Your task to perform on an android device: turn notification dots on Image 0: 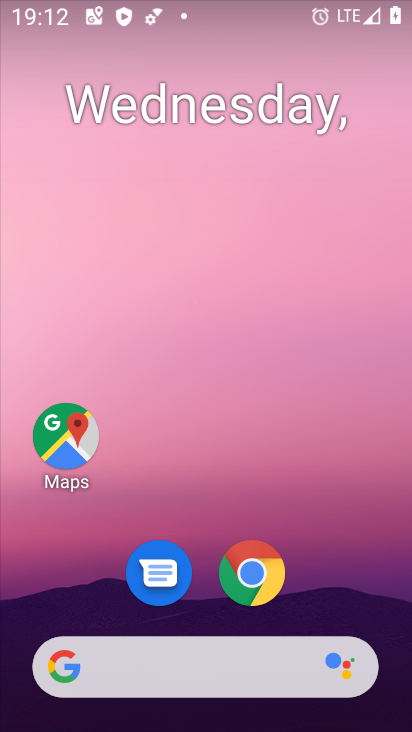
Step 0: drag from (369, 593) to (335, 166)
Your task to perform on an android device: turn notification dots on Image 1: 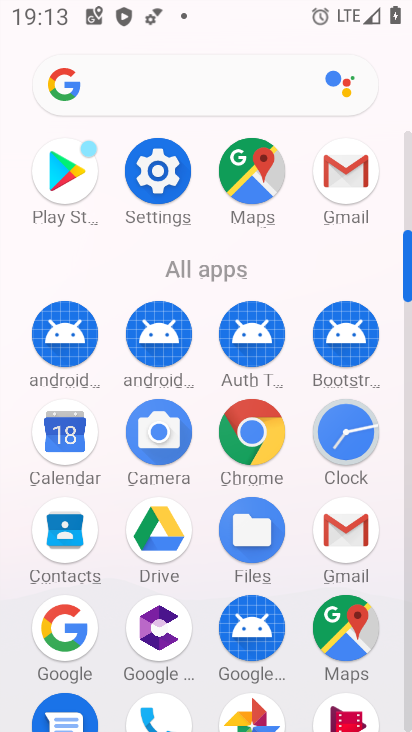
Step 1: click (166, 185)
Your task to perform on an android device: turn notification dots on Image 2: 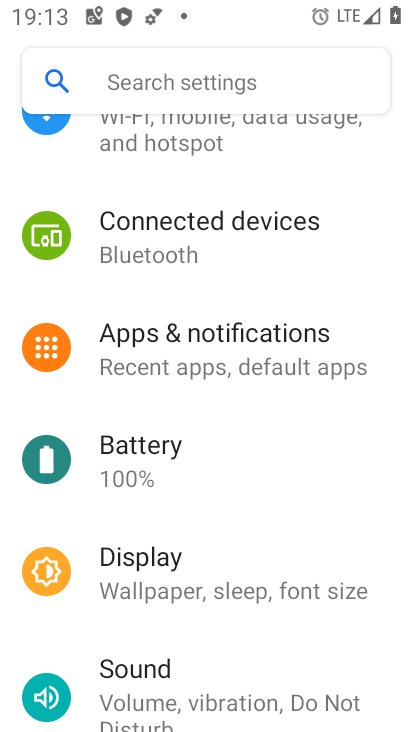
Step 2: click (210, 337)
Your task to perform on an android device: turn notification dots on Image 3: 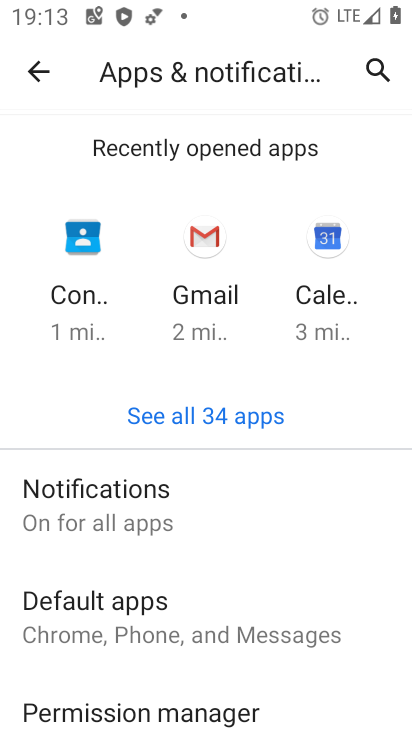
Step 3: click (199, 519)
Your task to perform on an android device: turn notification dots on Image 4: 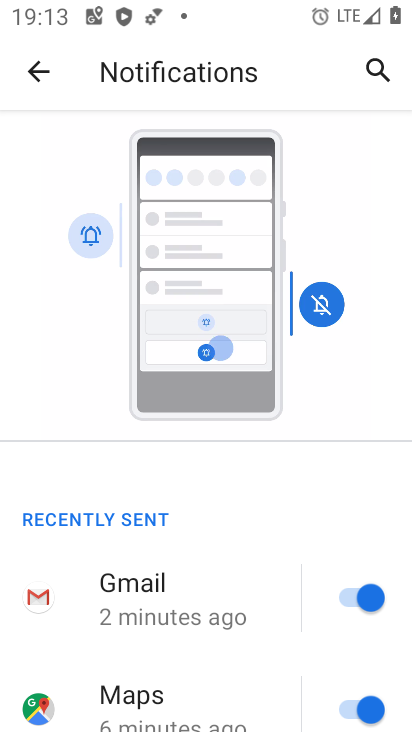
Step 4: drag from (197, 628) to (223, 11)
Your task to perform on an android device: turn notification dots on Image 5: 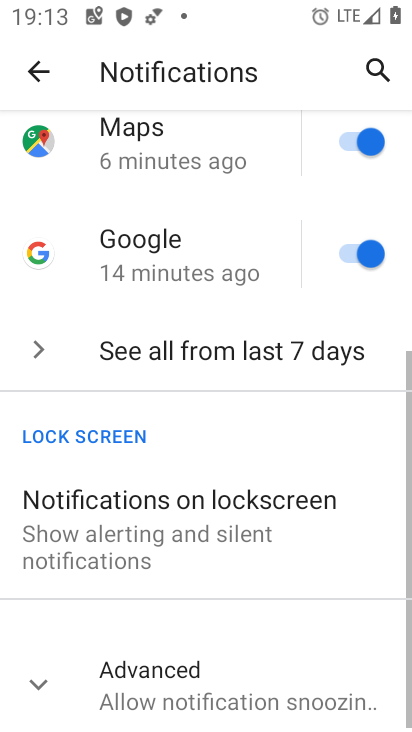
Step 5: drag from (230, 531) to (204, 140)
Your task to perform on an android device: turn notification dots on Image 6: 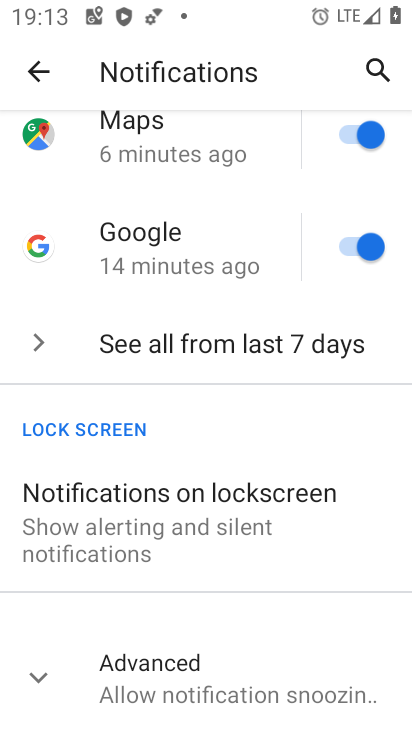
Step 6: click (182, 693)
Your task to perform on an android device: turn notification dots on Image 7: 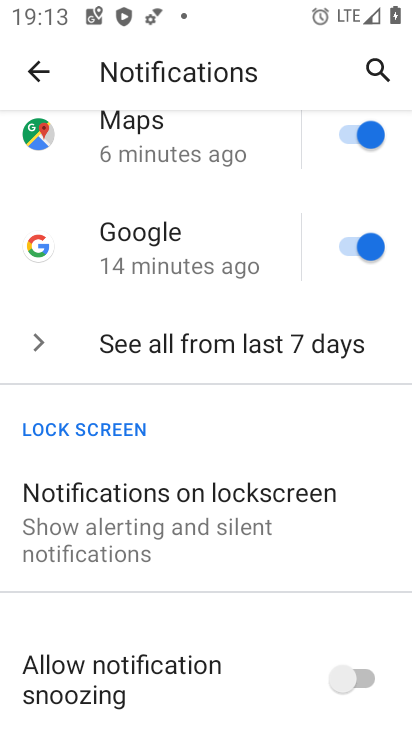
Step 7: task complete